Your task to perform on an android device: Open calendar and show me the fourth week of next month Image 0: 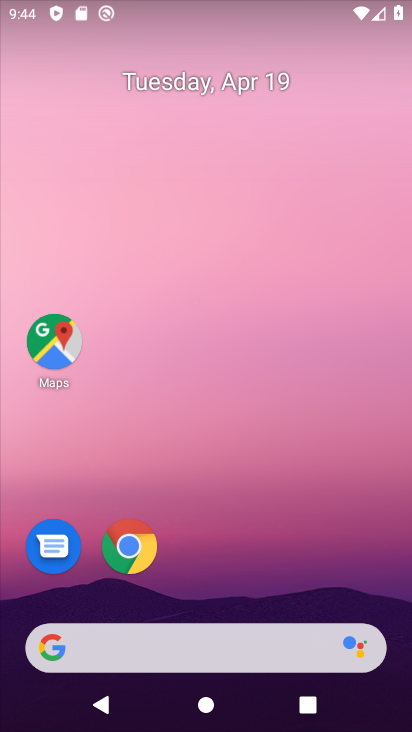
Step 0: drag from (226, 590) to (201, 33)
Your task to perform on an android device: Open calendar and show me the fourth week of next month Image 1: 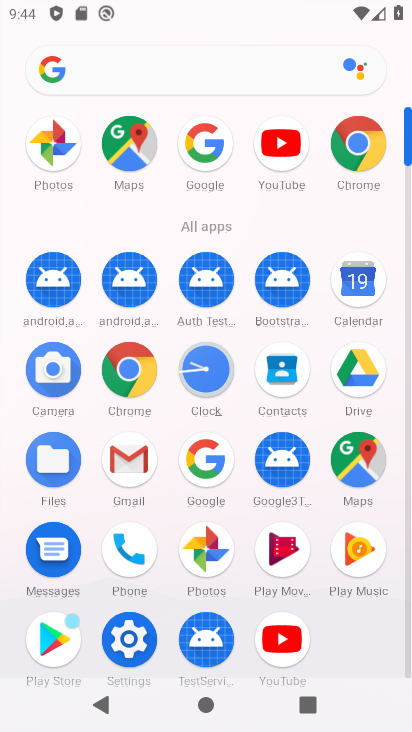
Step 1: click (348, 290)
Your task to perform on an android device: Open calendar and show me the fourth week of next month Image 2: 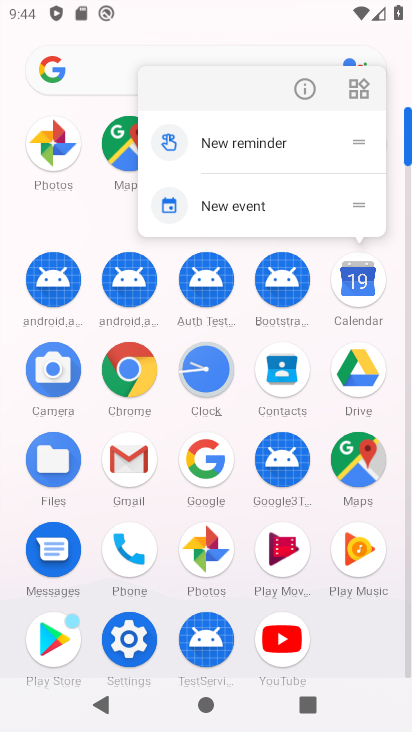
Step 2: click (360, 289)
Your task to perform on an android device: Open calendar and show me the fourth week of next month Image 3: 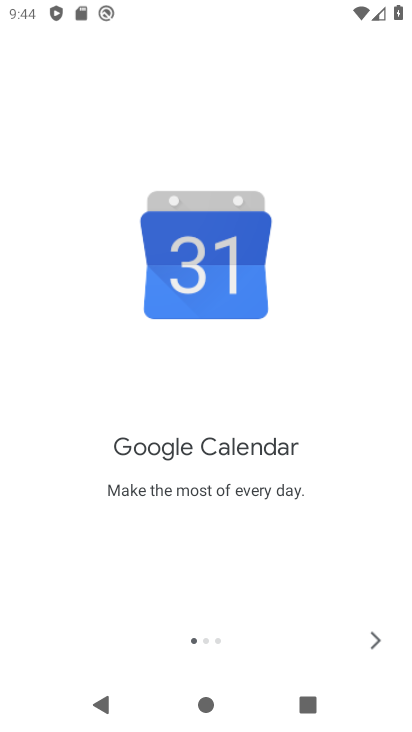
Step 3: click (376, 631)
Your task to perform on an android device: Open calendar and show me the fourth week of next month Image 4: 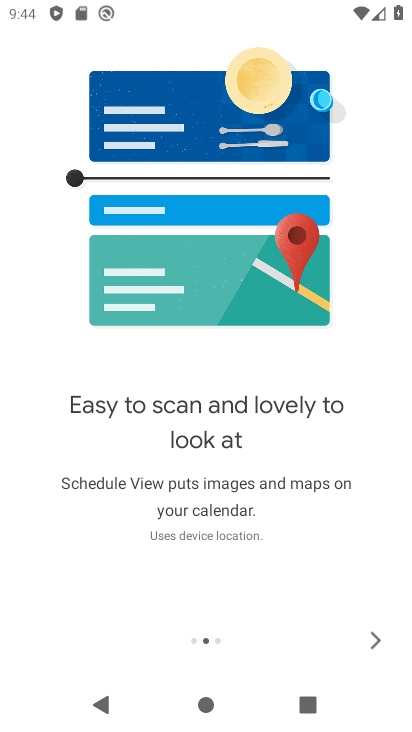
Step 4: click (373, 631)
Your task to perform on an android device: Open calendar and show me the fourth week of next month Image 5: 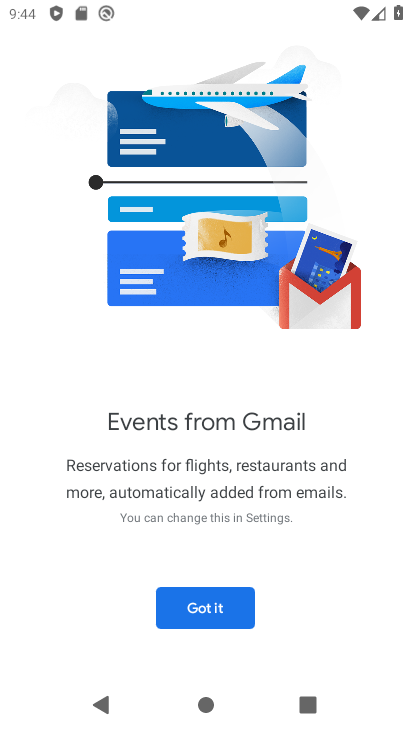
Step 5: click (195, 605)
Your task to perform on an android device: Open calendar and show me the fourth week of next month Image 6: 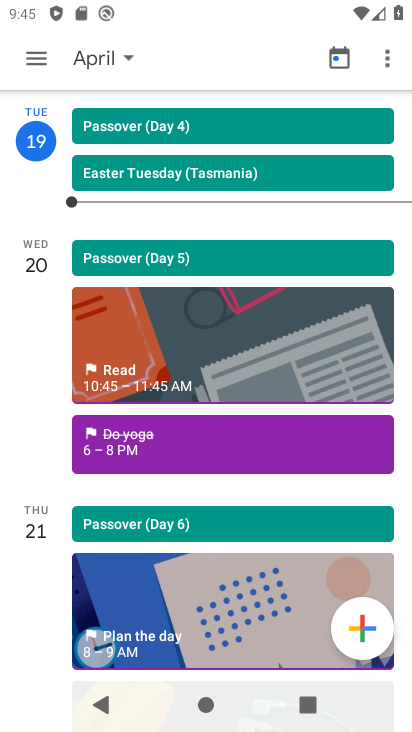
Step 6: click (27, 60)
Your task to perform on an android device: Open calendar and show me the fourth week of next month Image 7: 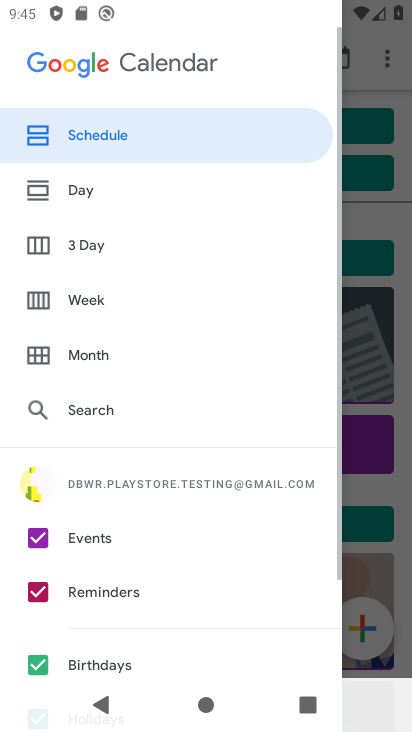
Step 7: click (91, 281)
Your task to perform on an android device: Open calendar and show me the fourth week of next month Image 8: 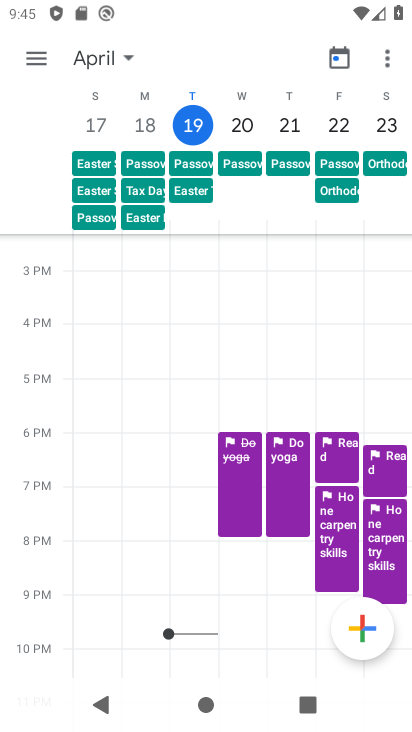
Step 8: drag from (309, 119) to (0, 101)
Your task to perform on an android device: Open calendar and show me the fourth week of next month Image 9: 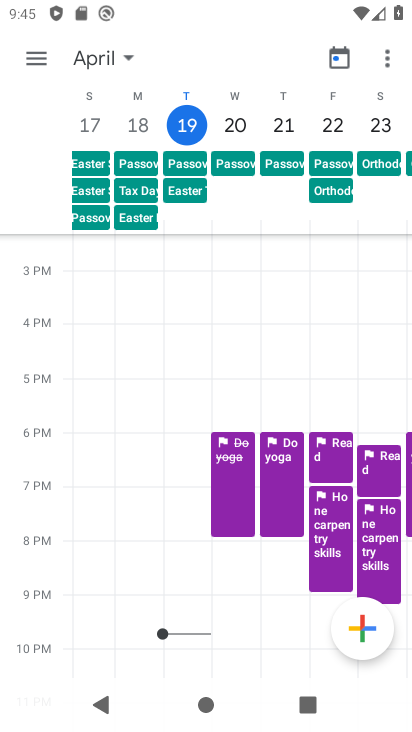
Step 9: drag from (351, 120) to (5, 81)
Your task to perform on an android device: Open calendar and show me the fourth week of next month Image 10: 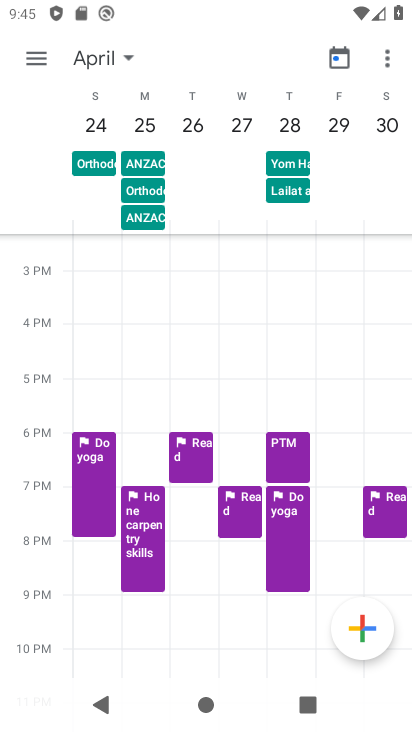
Step 10: drag from (379, 147) to (19, 147)
Your task to perform on an android device: Open calendar and show me the fourth week of next month Image 11: 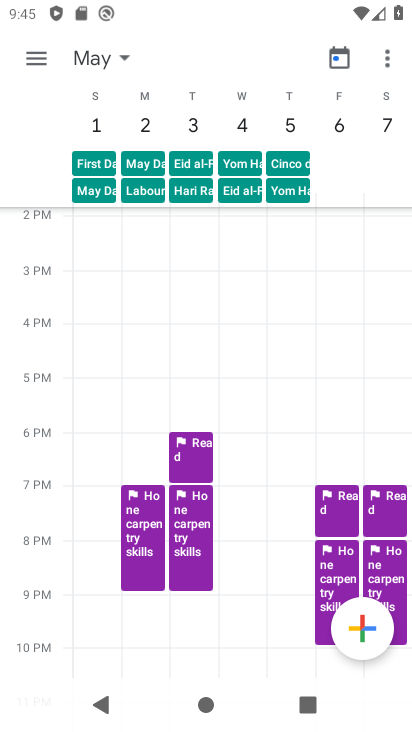
Step 11: click (0, 65)
Your task to perform on an android device: Open calendar and show me the fourth week of next month Image 12: 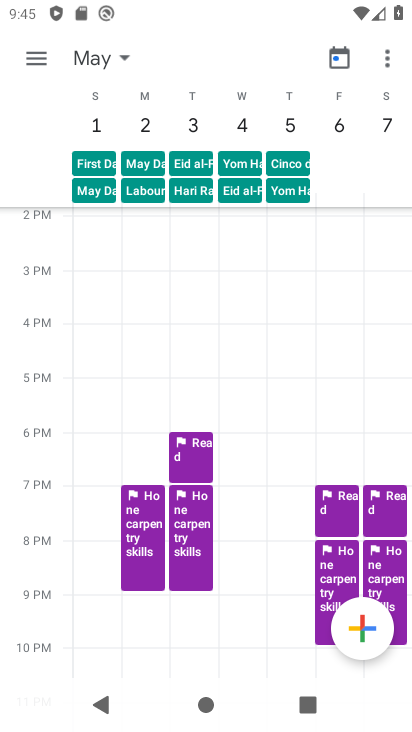
Step 12: task complete